Your task to perform on an android device: Open the map Image 0: 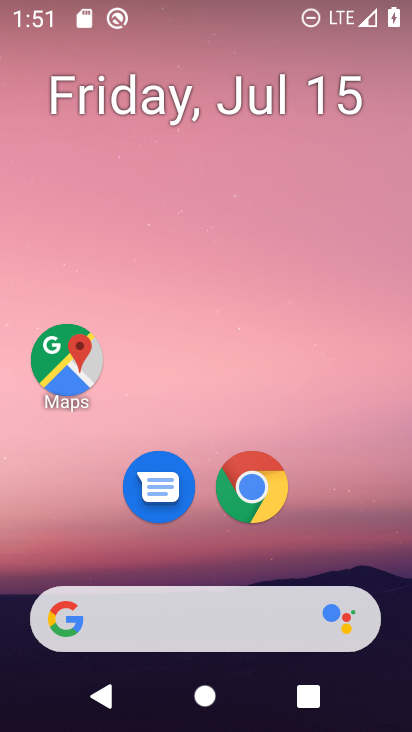
Step 0: drag from (189, 544) to (206, 141)
Your task to perform on an android device: Open the map Image 1: 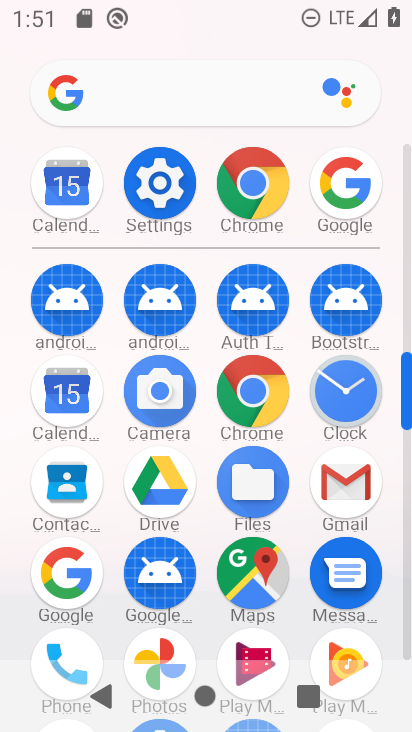
Step 1: click (262, 590)
Your task to perform on an android device: Open the map Image 2: 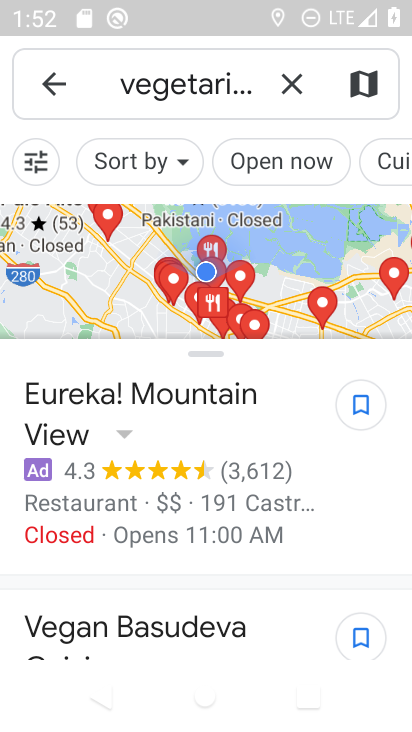
Step 2: task complete